Your task to perform on an android device: Open Wikipedia Image 0: 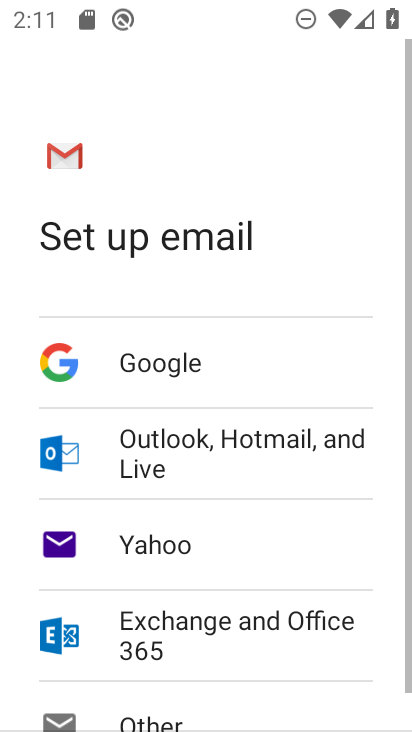
Step 0: press home button
Your task to perform on an android device: Open Wikipedia Image 1: 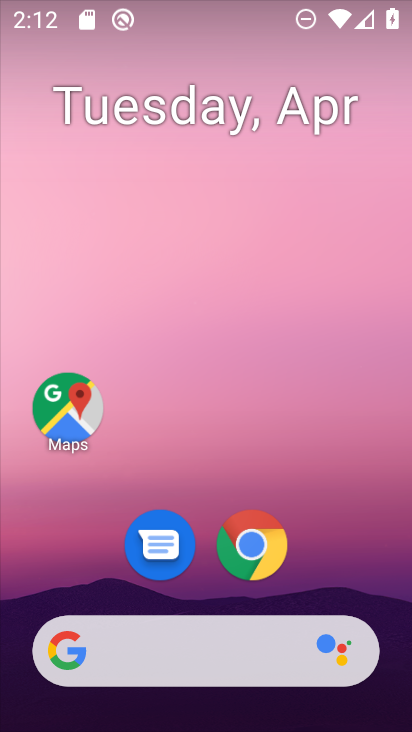
Step 1: drag from (400, 564) to (371, 91)
Your task to perform on an android device: Open Wikipedia Image 2: 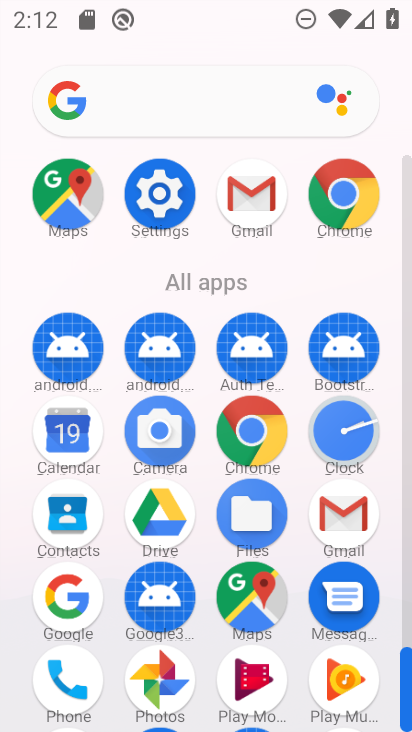
Step 2: click (360, 180)
Your task to perform on an android device: Open Wikipedia Image 3: 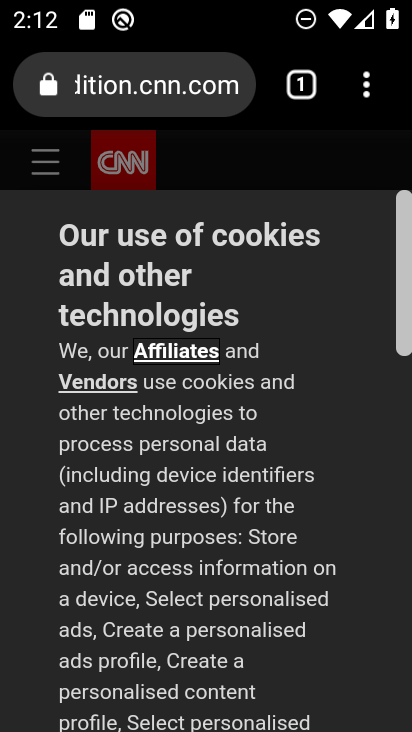
Step 3: click (314, 86)
Your task to perform on an android device: Open Wikipedia Image 4: 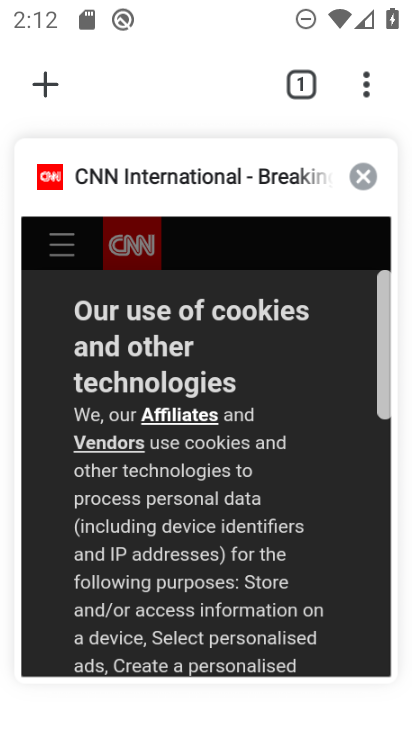
Step 4: click (58, 87)
Your task to perform on an android device: Open Wikipedia Image 5: 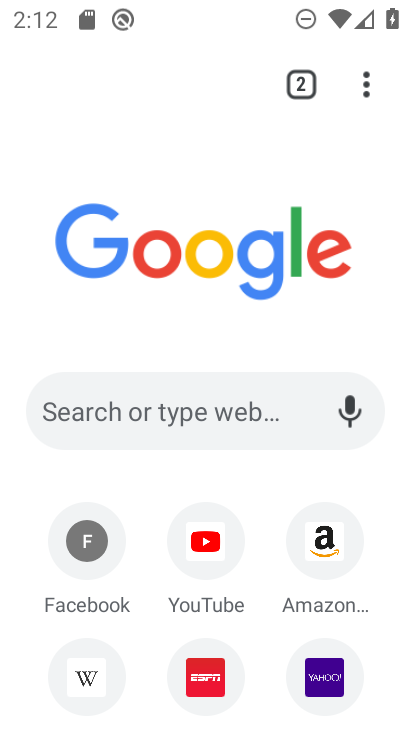
Step 5: click (81, 684)
Your task to perform on an android device: Open Wikipedia Image 6: 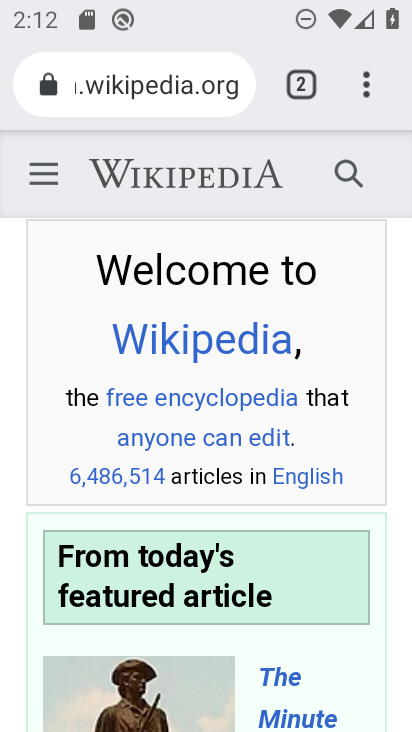
Step 6: task complete